Your task to perform on an android device: uninstall "Google Find My Device" Image 0: 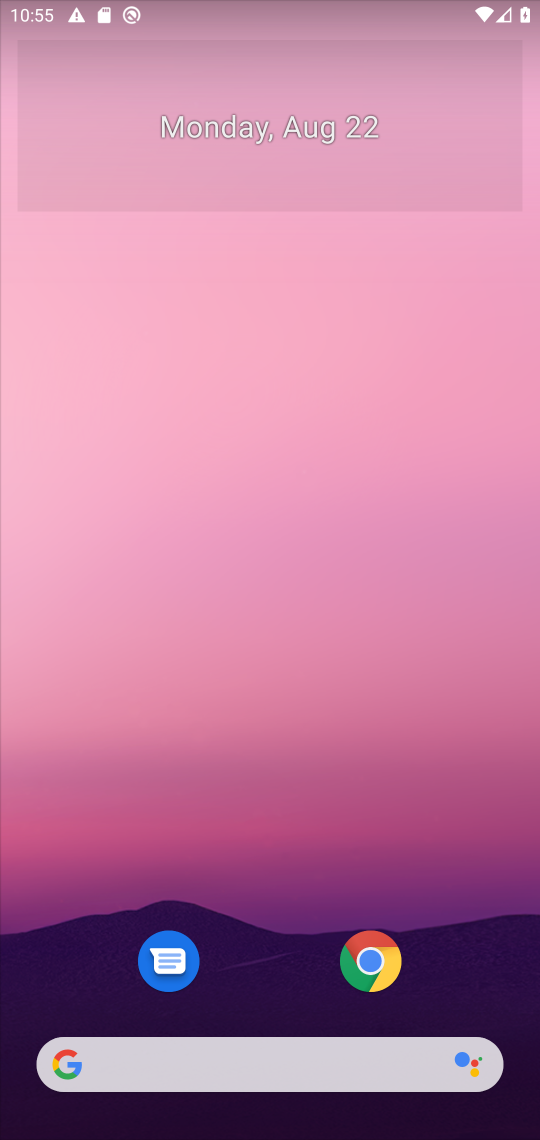
Step 0: drag from (261, 1031) to (253, 4)
Your task to perform on an android device: uninstall "Google Find My Device" Image 1: 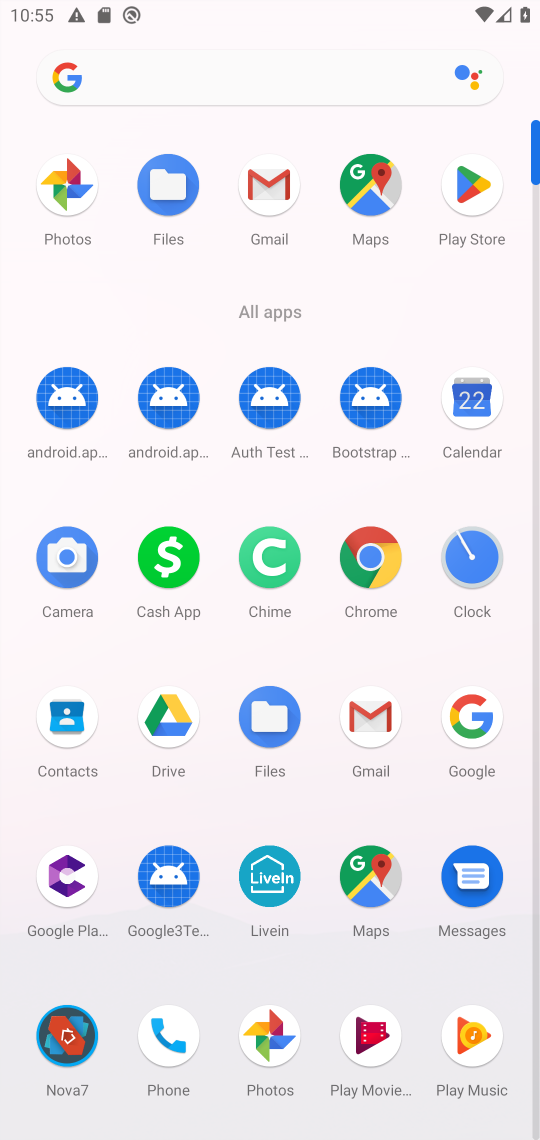
Step 1: click (445, 202)
Your task to perform on an android device: uninstall "Google Find My Device" Image 2: 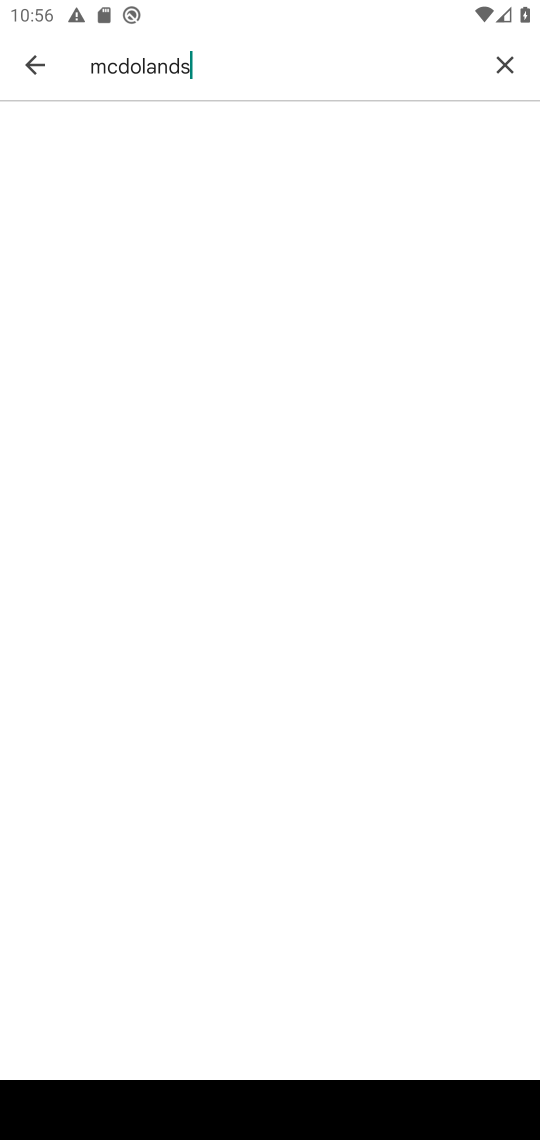
Step 2: click (503, 73)
Your task to perform on an android device: uninstall "Google Find My Device" Image 3: 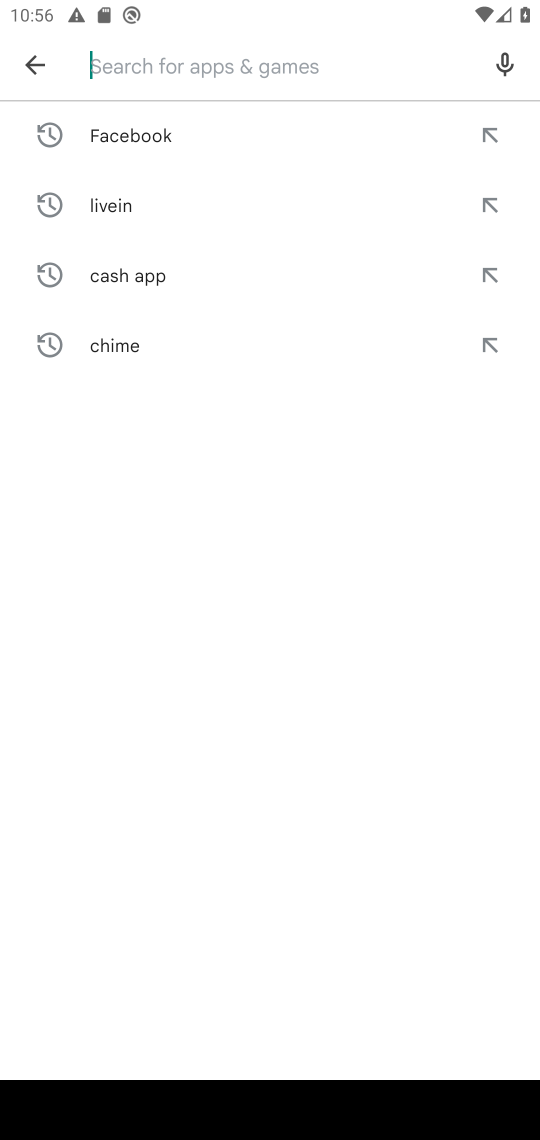
Step 3: type "google find my devies"
Your task to perform on an android device: uninstall "Google Find My Device" Image 4: 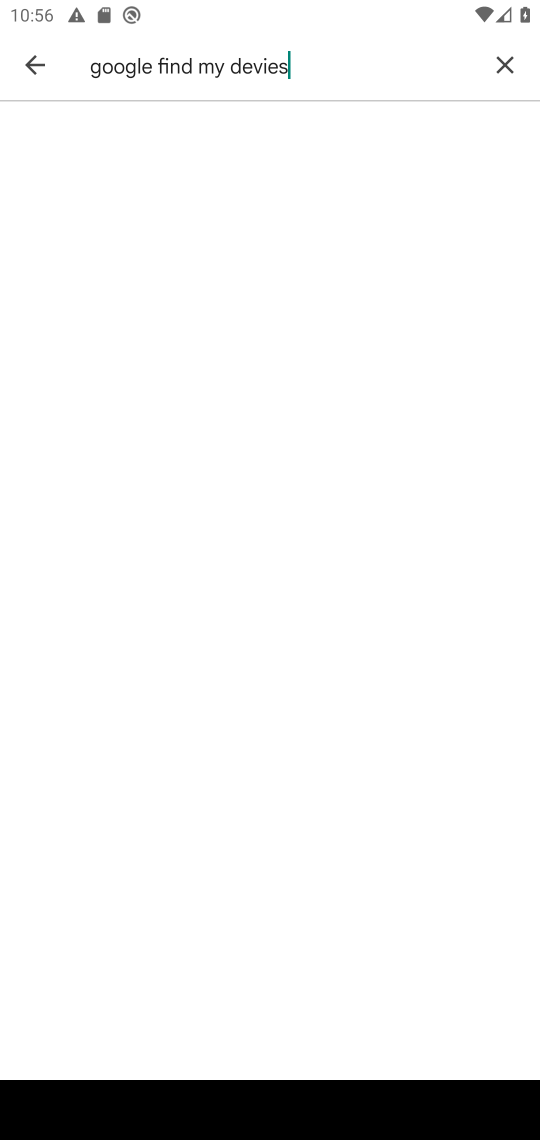
Step 4: task complete